Your task to perform on an android device: Set the phone to "Do not disturb". Image 0: 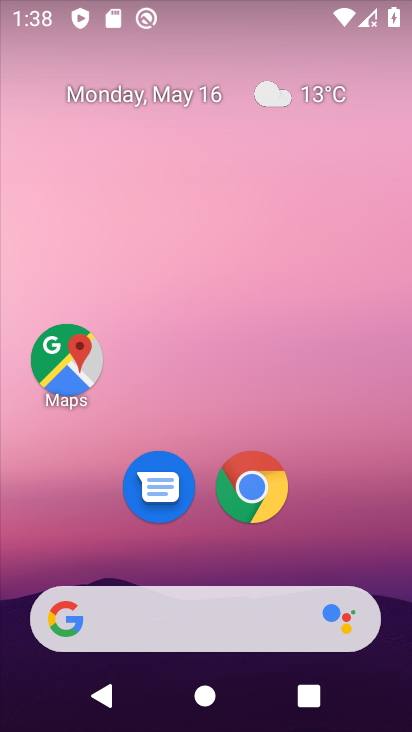
Step 0: drag from (389, 652) to (321, 318)
Your task to perform on an android device: Set the phone to "Do not disturb". Image 1: 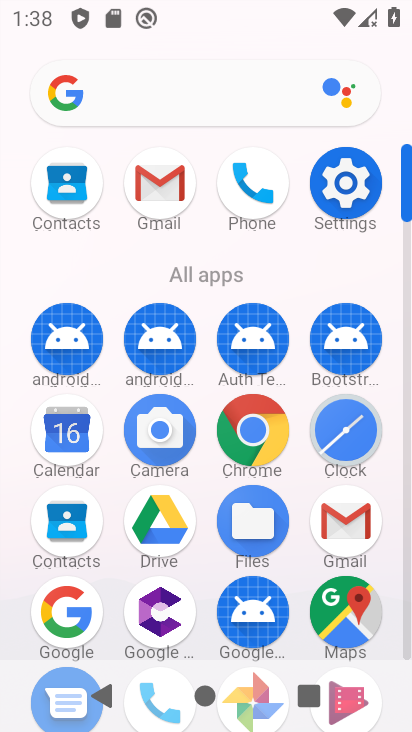
Step 1: click (350, 175)
Your task to perform on an android device: Set the phone to "Do not disturb". Image 2: 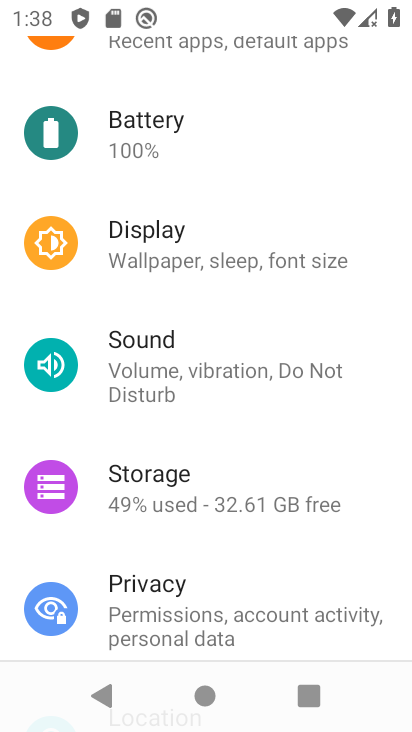
Step 2: click (148, 369)
Your task to perform on an android device: Set the phone to "Do not disturb". Image 3: 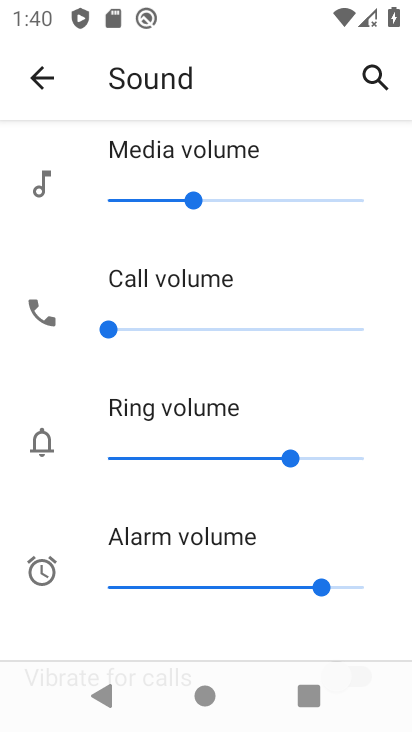
Step 3: drag from (289, 661) to (254, 249)
Your task to perform on an android device: Set the phone to "Do not disturb". Image 4: 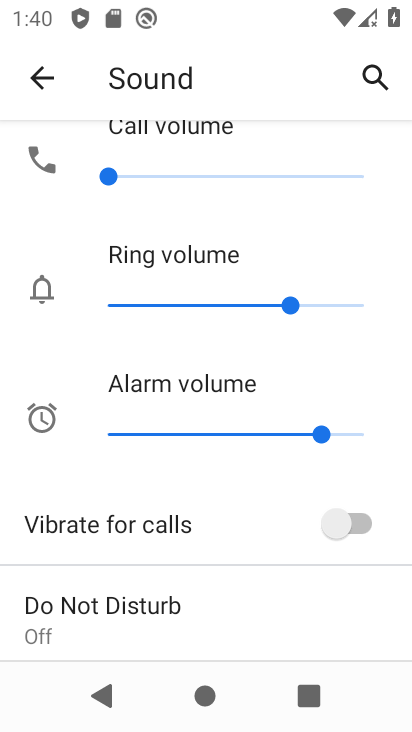
Step 4: click (101, 600)
Your task to perform on an android device: Set the phone to "Do not disturb". Image 5: 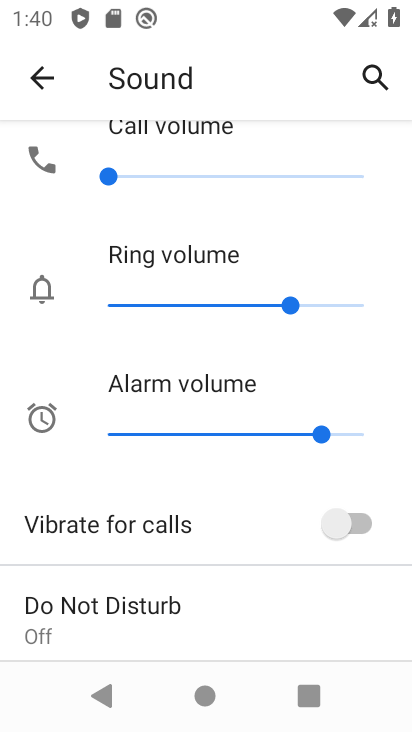
Step 5: click (159, 605)
Your task to perform on an android device: Set the phone to "Do not disturb". Image 6: 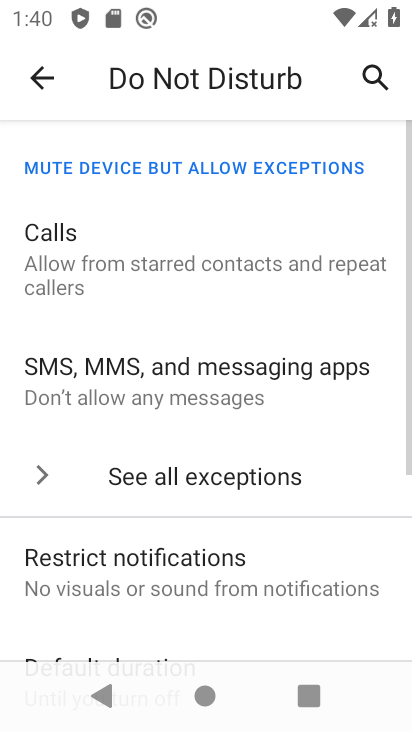
Step 6: drag from (248, 592) to (227, 319)
Your task to perform on an android device: Set the phone to "Do not disturb". Image 7: 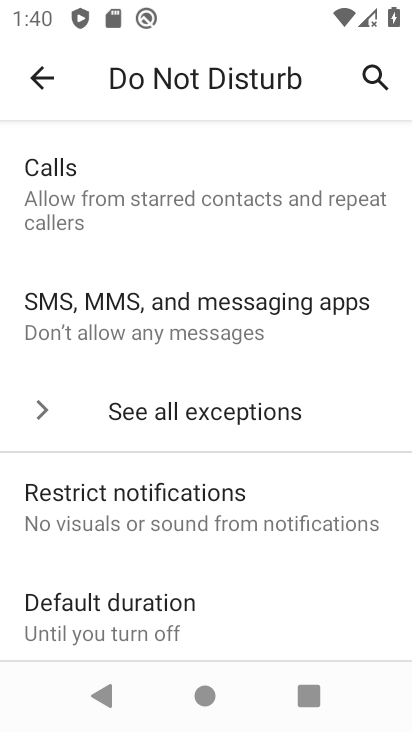
Step 7: drag from (208, 632) to (213, 438)
Your task to perform on an android device: Set the phone to "Do not disturb". Image 8: 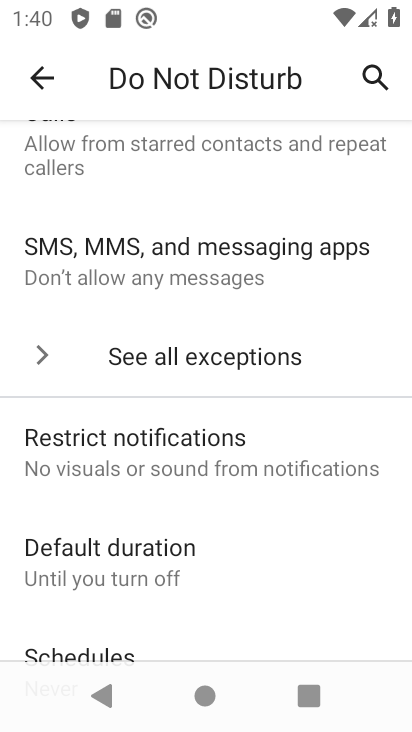
Step 8: drag from (217, 621) to (220, 460)
Your task to perform on an android device: Set the phone to "Do not disturb". Image 9: 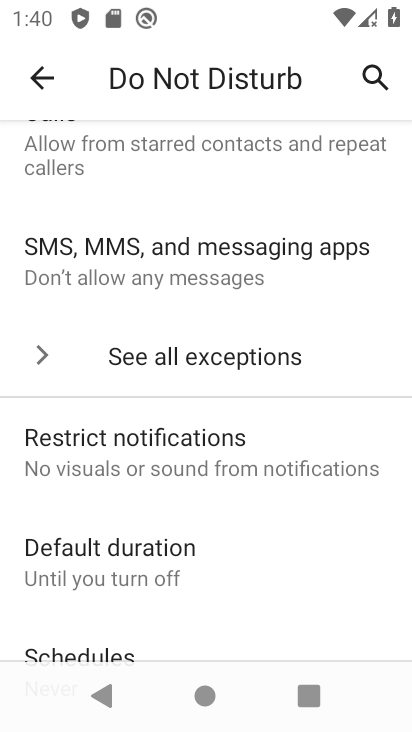
Step 9: drag from (267, 597) to (267, 407)
Your task to perform on an android device: Set the phone to "Do not disturb". Image 10: 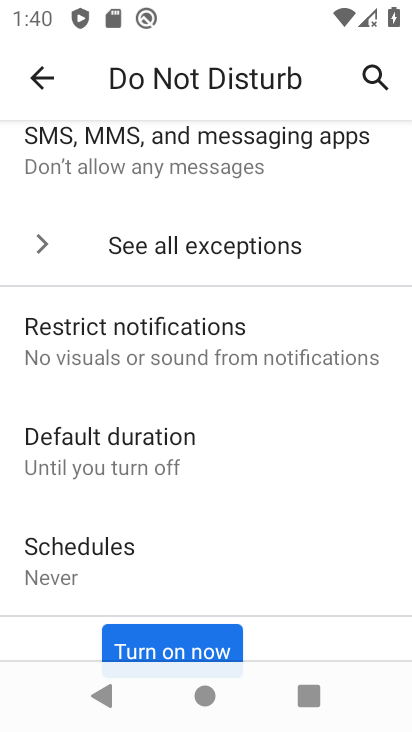
Step 10: click (171, 650)
Your task to perform on an android device: Set the phone to "Do not disturb". Image 11: 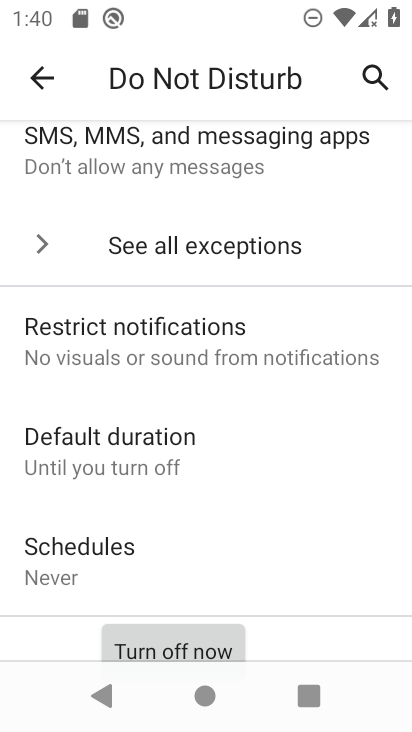
Step 11: task complete